Your task to perform on an android device: Go to Yahoo.com Image 0: 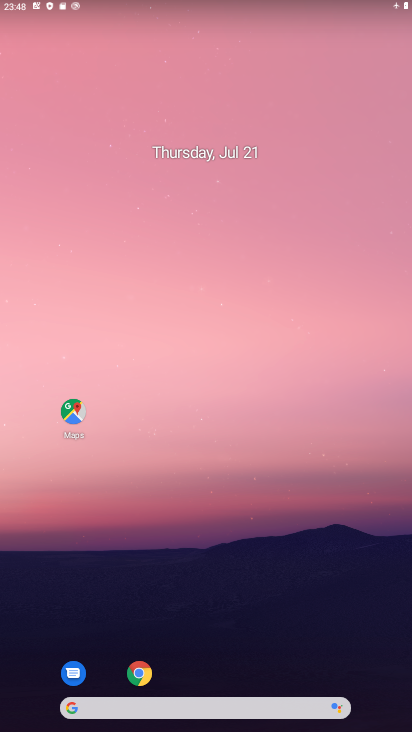
Step 0: click (147, 667)
Your task to perform on an android device: Go to Yahoo.com Image 1: 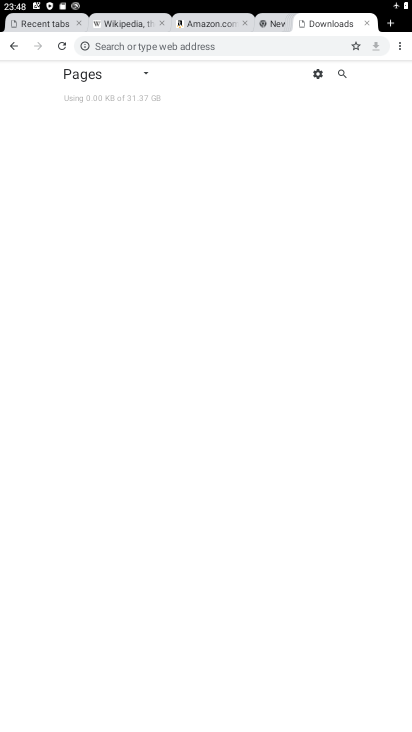
Step 1: click (392, 30)
Your task to perform on an android device: Go to Yahoo.com Image 2: 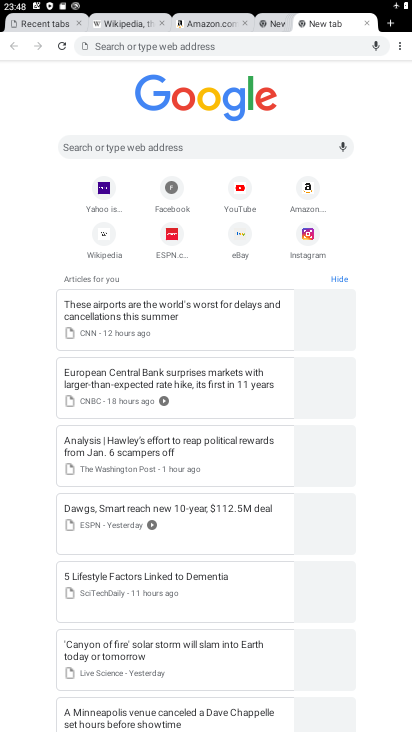
Step 2: click (101, 204)
Your task to perform on an android device: Go to Yahoo.com Image 3: 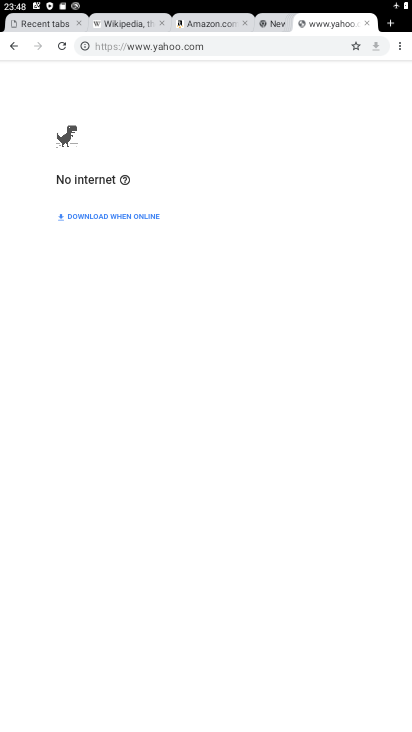
Step 3: task complete